Your task to perform on an android device: Show me popular videos on Youtube Image 0: 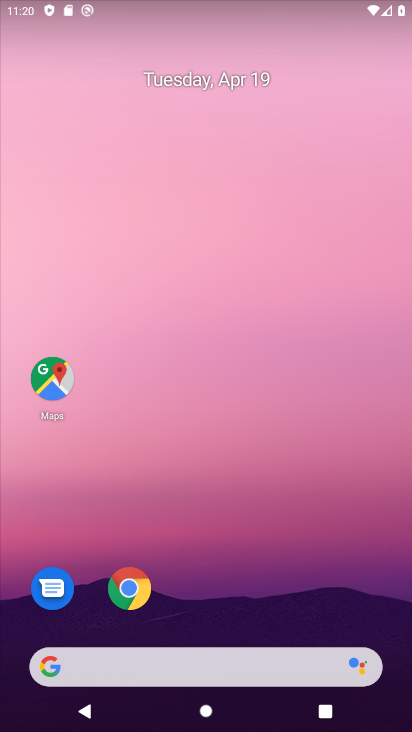
Step 0: drag from (221, 602) to (252, 38)
Your task to perform on an android device: Show me popular videos on Youtube Image 1: 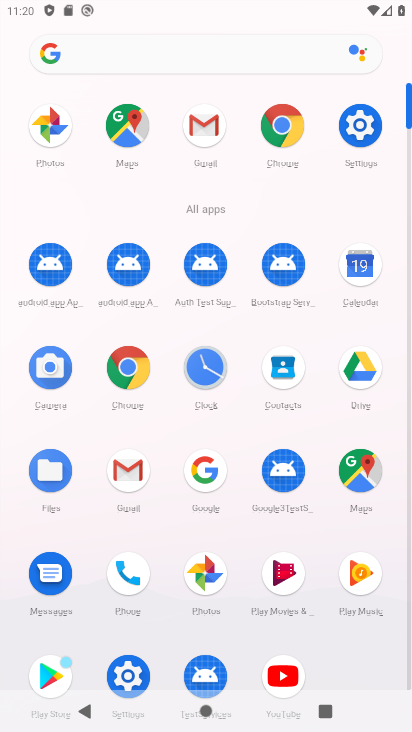
Step 1: click (283, 668)
Your task to perform on an android device: Show me popular videos on Youtube Image 2: 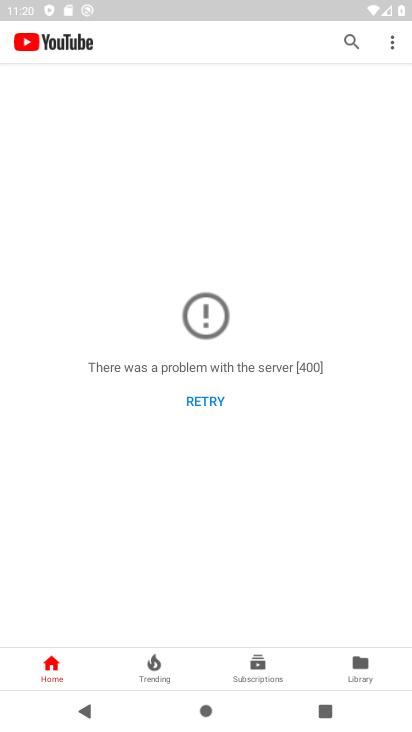
Step 2: click (389, 41)
Your task to perform on an android device: Show me popular videos on Youtube Image 3: 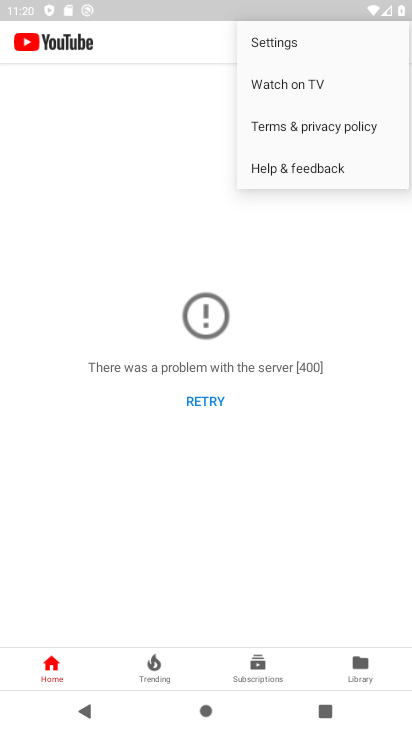
Step 3: click (304, 43)
Your task to perform on an android device: Show me popular videos on Youtube Image 4: 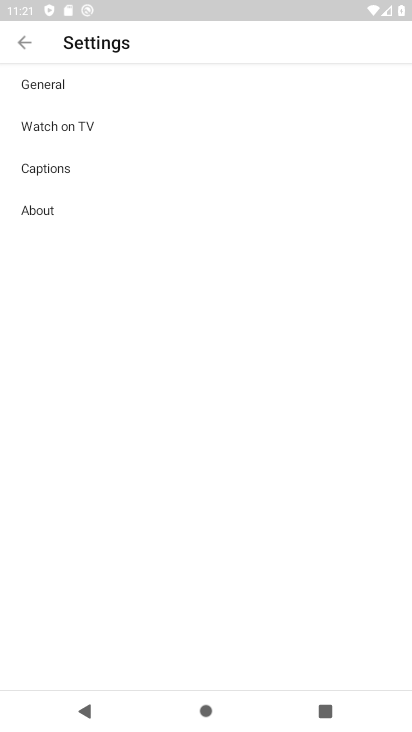
Step 4: click (27, 48)
Your task to perform on an android device: Show me popular videos on Youtube Image 5: 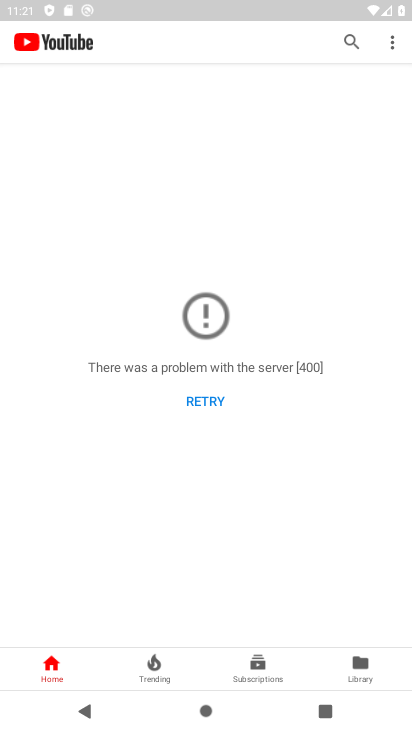
Step 5: click (208, 400)
Your task to perform on an android device: Show me popular videos on Youtube Image 6: 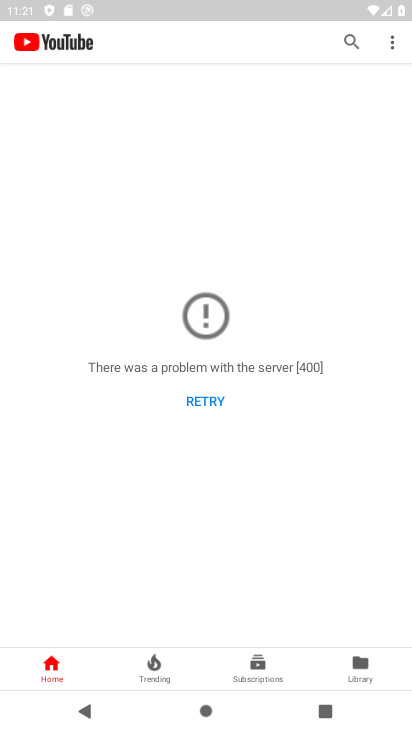
Step 6: click (202, 400)
Your task to perform on an android device: Show me popular videos on Youtube Image 7: 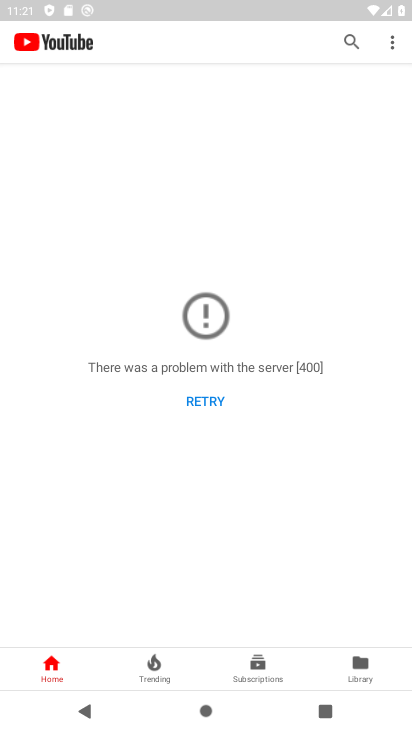
Step 7: click (207, 400)
Your task to perform on an android device: Show me popular videos on Youtube Image 8: 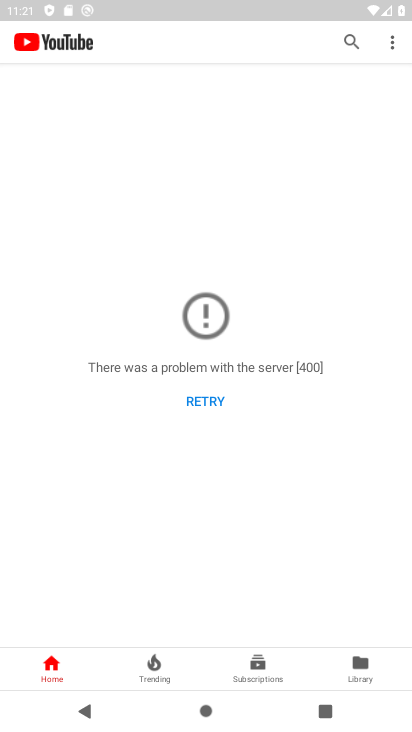
Step 8: task complete